Your task to perform on an android device: turn off picture-in-picture Image 0: 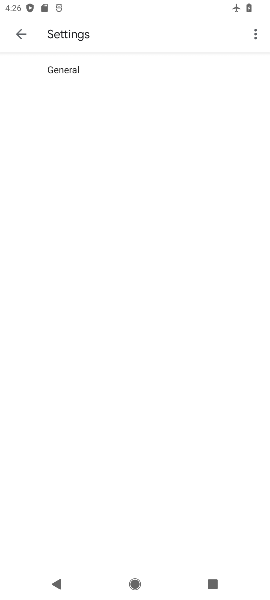
Step 0: press home button
Your task to perform on an android device: turn off picture-in-picture Image 1: 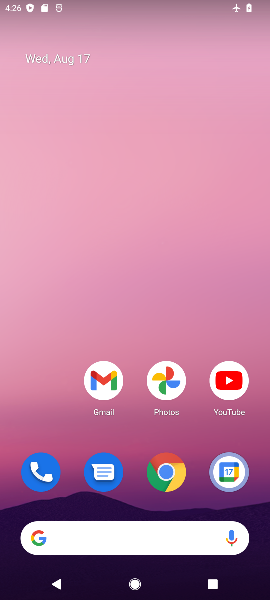
Step 1: click (159, 474)
Your task to perform on an android device: turn off picture-in-picture Image 2: 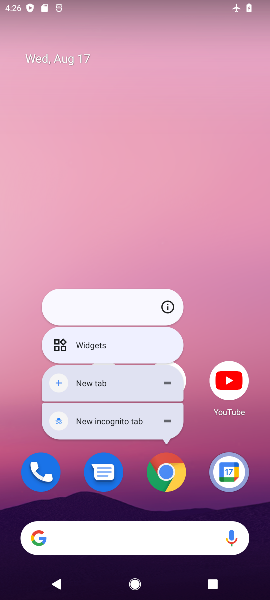
Step 2: click (175, 306)
Your task to perform on an android device: turn off picture-in-picture Image 3: 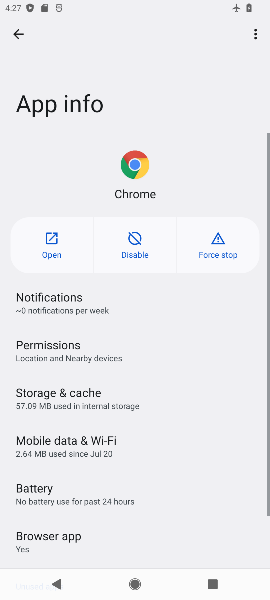
Step 3: drag from (105, 523) to (122, 303)
Your task to perform on an android device: turn off picture-in-picture Image 4: 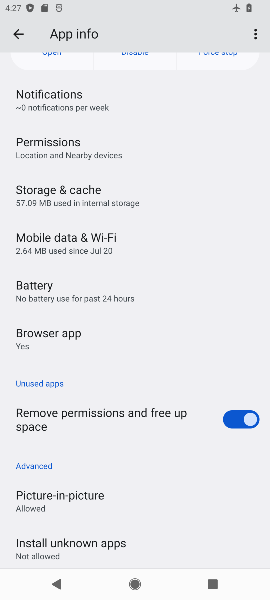
Step 4: drag from (137, 499) to (117, 248)
Your task to perform on an android device: turn off picture-in-picture Image 5: 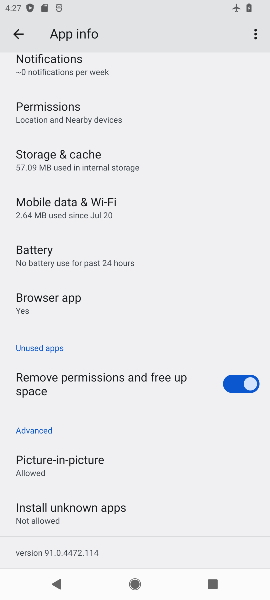
Step 5: click (97, 461)
Your task to perform on an android device: turn off picture-in-picture Image 6: 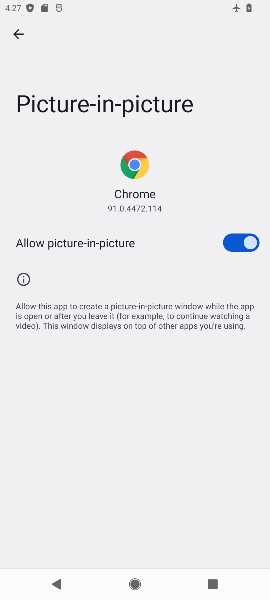
Step 6: click (233, 243)
Your task to perform on an android device: turn off picture-in-picture Image 7: 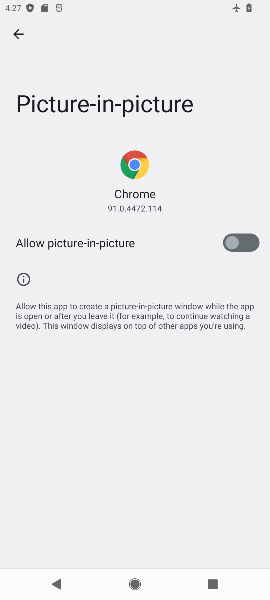
Step 7: task complete